Your task to perform on an android device: open sync settings in chrome Image 0: 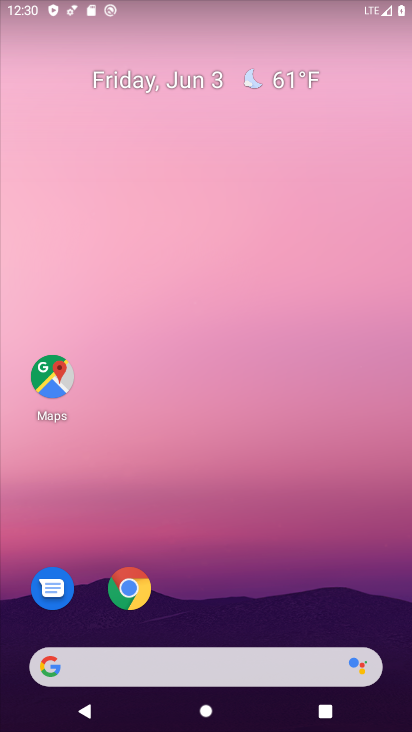
Step 0: drag from (237, 211) to (242, 150)
Your task to perform on an android device: open sync settings in chrome Image 1: 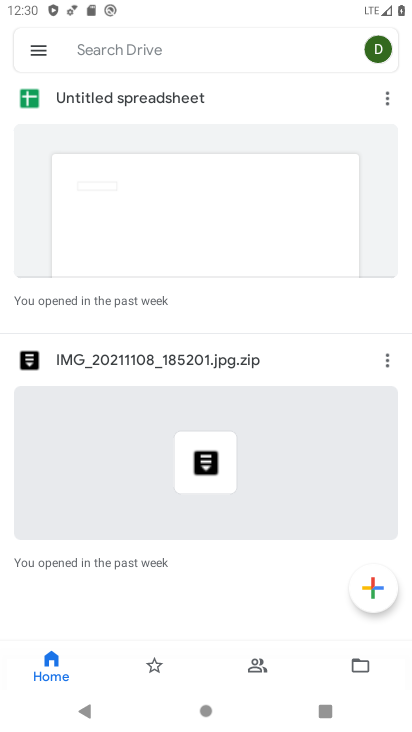
Step 1: press home button
Your task to perform on an android device: open sync settings in chrome Image 2: 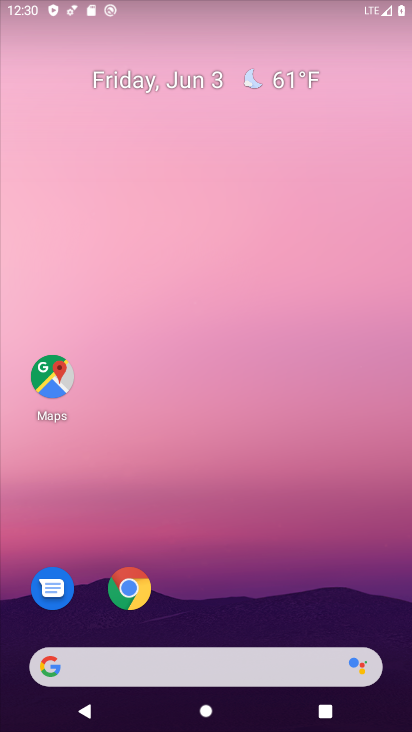
Step 2: drag from (238, 577) to (223, 75)
Your task to perform on an android device: open sync settings in chrome Image 3: 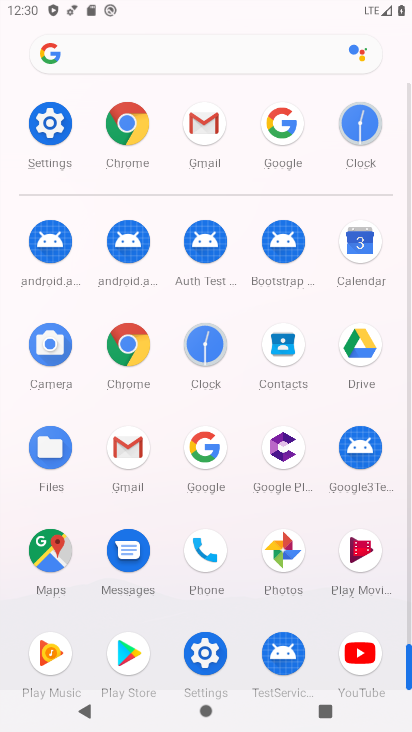
Step 3: click (148, 345)
Your task to perform on an android device: open sync settings in chrome Image 4: 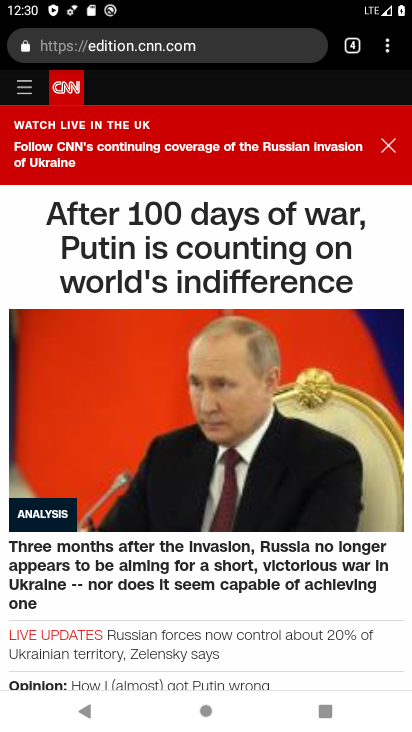
Step 4: click (383, 54)
Your task to perform on an android device: open sync settings in chrome Image 5: 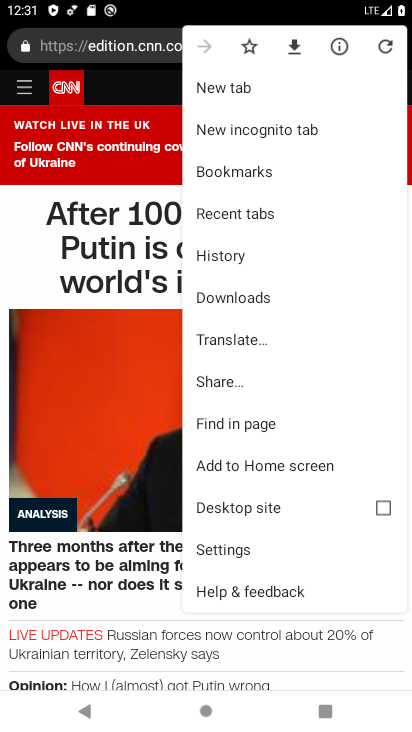
Step 5: click (234, 552)
Your task to perform on an android device: open sync settings in chrome Image 6: 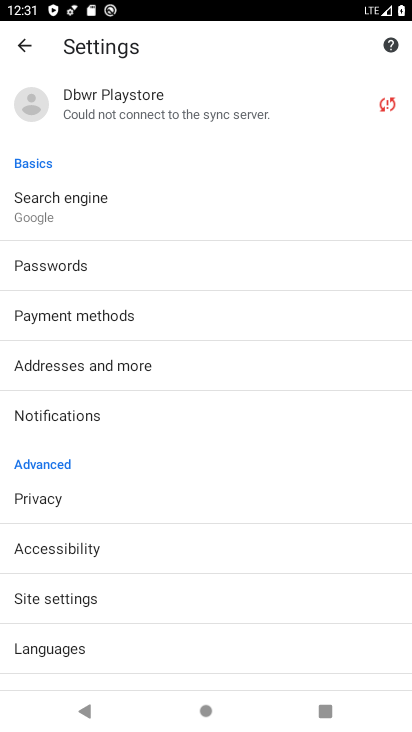
Step 6: click (193, 132)
Your task to perform on an android device: open sync settings in chrome Image 7: 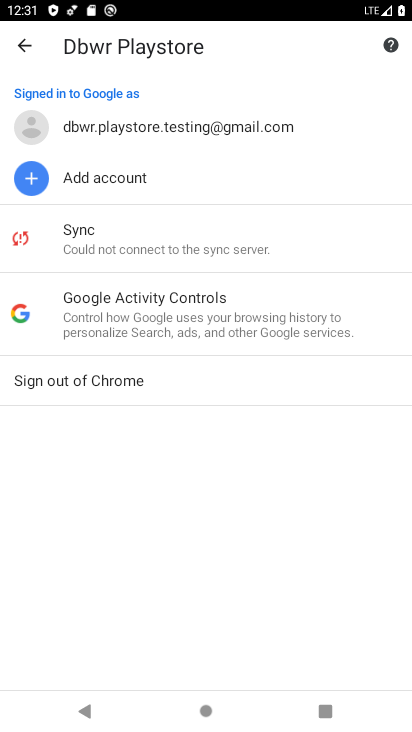
Step 7: click (170, 243)
Your task to perform on an android device: open sync settings in chrome Image 8: 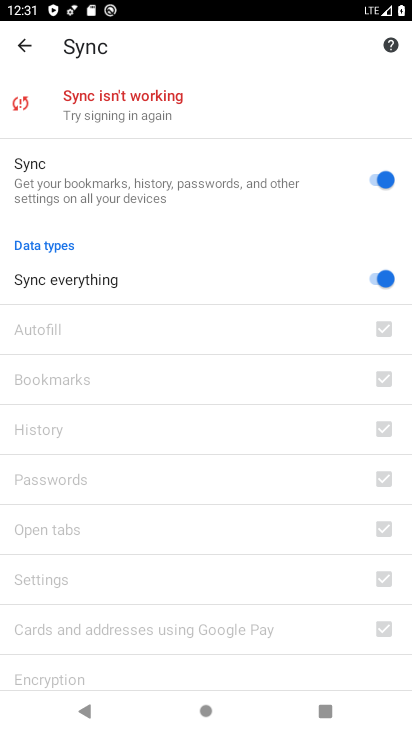
Step 8: task complete